Your task to perform on an android device: What's the weather going to be this weekend? Image 0: 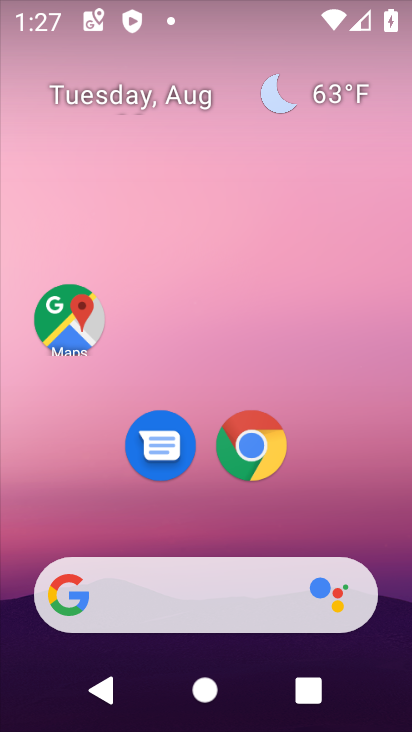
Step 0: press home button
Your task to perform on an android device: What's the weather going to be this weekend? Image 1: 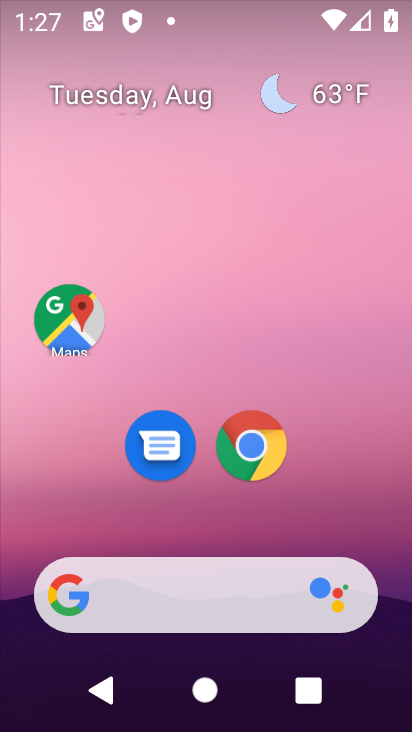
Step 1: click (338, 90)
Your task to perform on an android device: What's the weather going to be this weekend? Image 2: 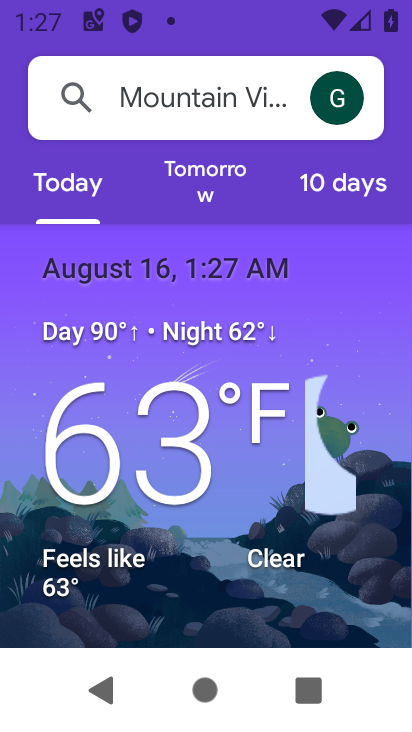
Step 2: click (365, 195)
Your task to perform on an android device: What's the weather going to be this weekend? Image 3: 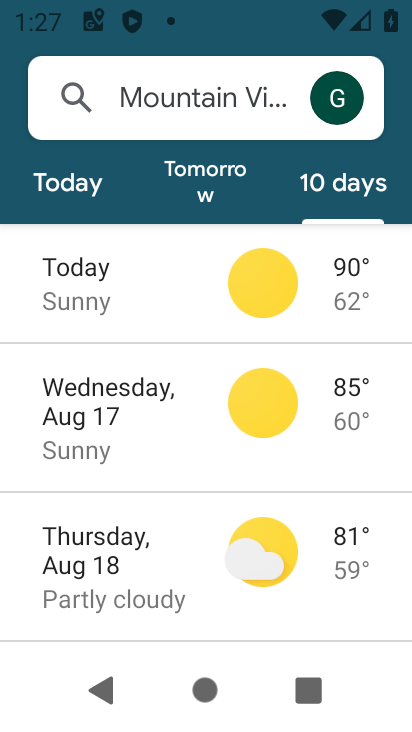
Step 3: drag from (173, 572) to (209, 261)
Your task to perform on an android device: What's the weather going to be this weekend? Image 4: 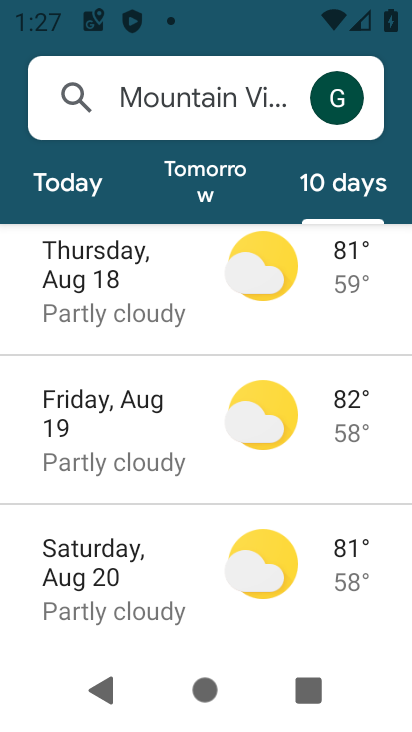
Step 4: drag from (168, 573) to (182, 279)
Your task to perform on an android device: What's the weather going to be this weekend? Image 5: 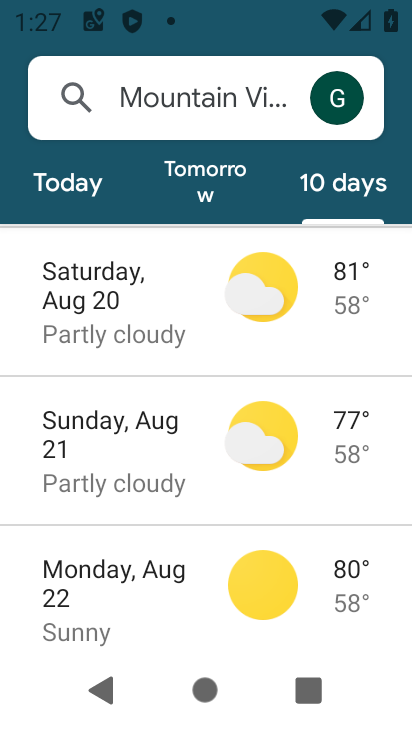
Step 5: click (150, 301)
Your task to perform on an android device: What's the weather going to be this weekend? Image 6: 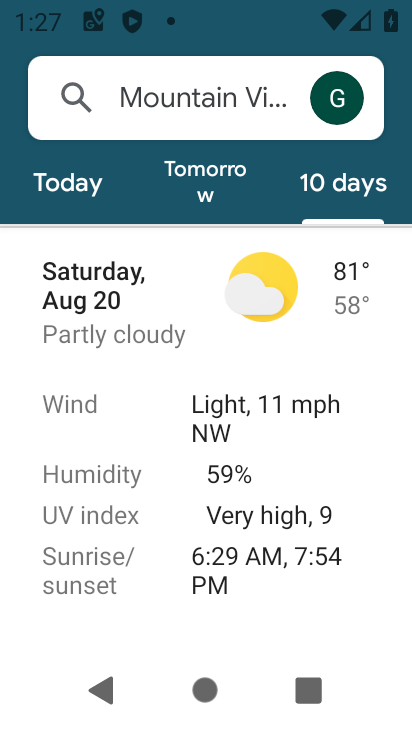
Step 6: drag from (179, 585) to (213, 246)
Your task to perform on an android device: What's the weather going to be this weekend? Image 7: 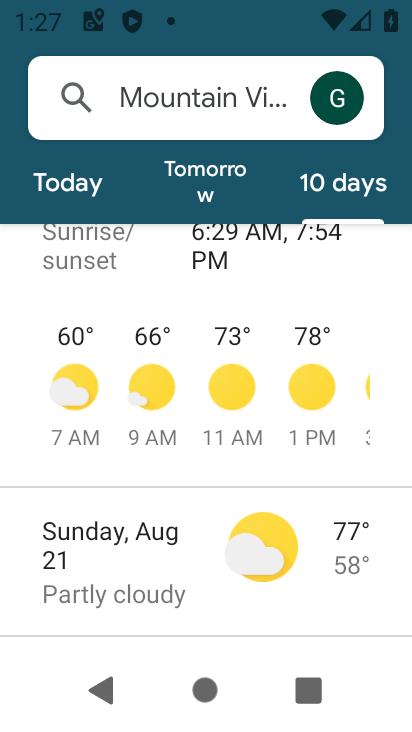
Step 7: drag from (180, 573) to (212, 341)
Your task to perform on an android device: What's the weather going to be this weekend? Image 8: 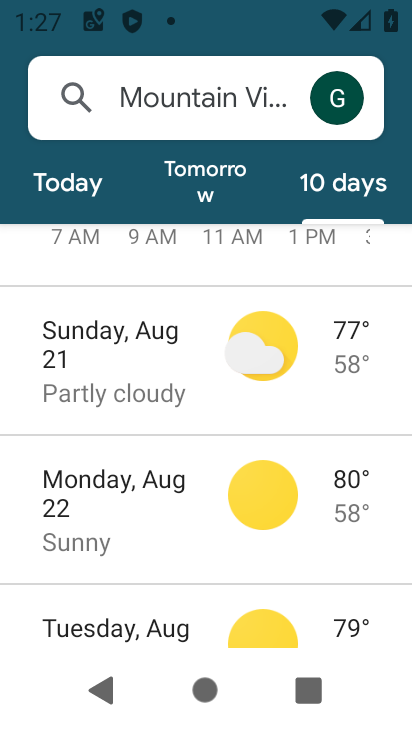
Step 8: click (167, 361)
Your task to perform on an android device: What's the weather going to be this weekend? Image 9: 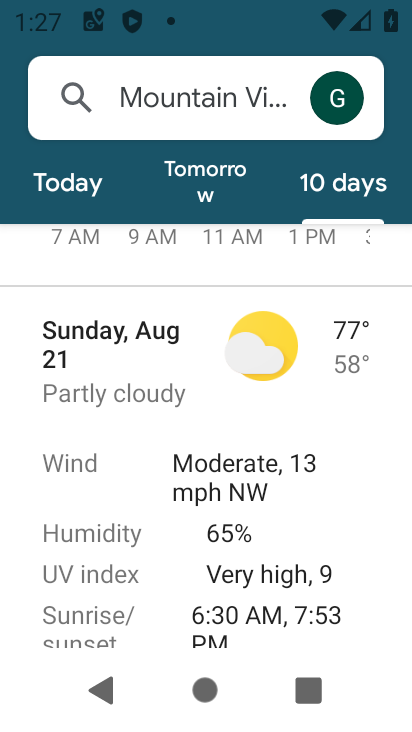
Step 9: task complete